Your task to perform on an android device: open app "Yahoo Mail" Image 0: 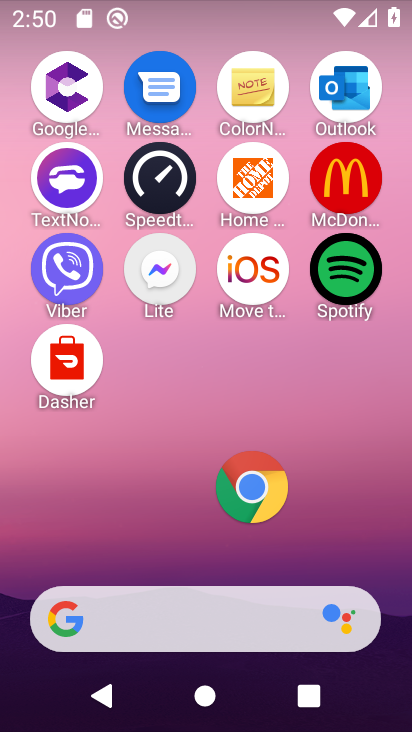
Step 0: drag from (170, 554) to (188, 228)
Your task to perform on an android device: open app "Yahoo Mail" Image 1: 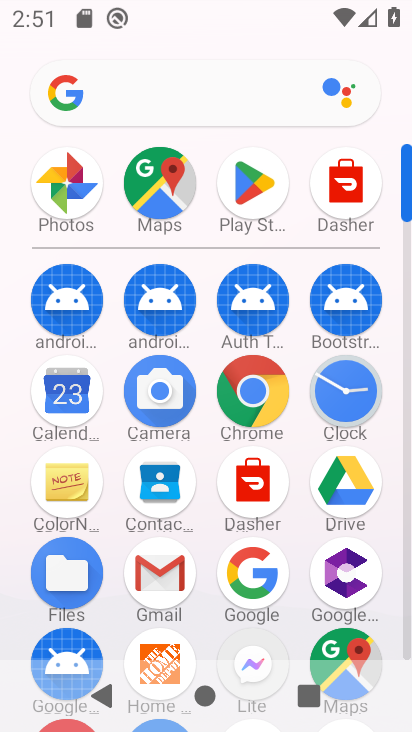
Step 1: click (250, 161)
Your task to perform on an android device: open app "Yahoo Mail" Image 2: 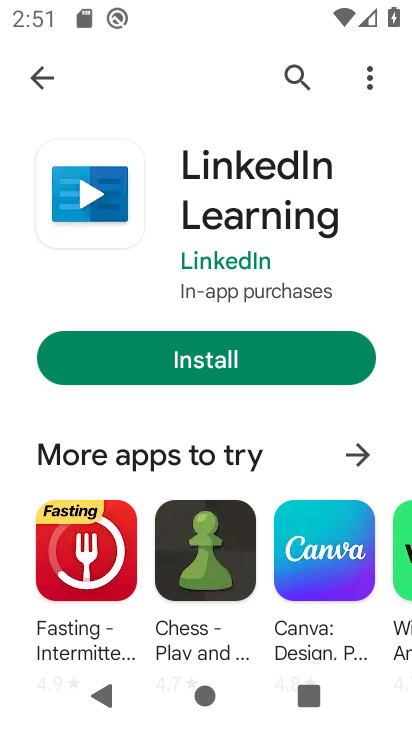
Step 2: click (46, 67)
Your task to perform on an android device: open app "Yahoo Mail" Image 3: 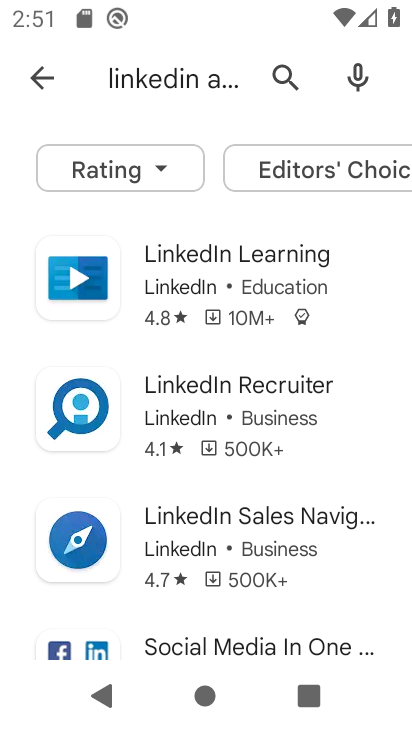
Step 3: click (59, 64)
Your task to perform on an android device: open app "Yahoo Mail" Image 4: 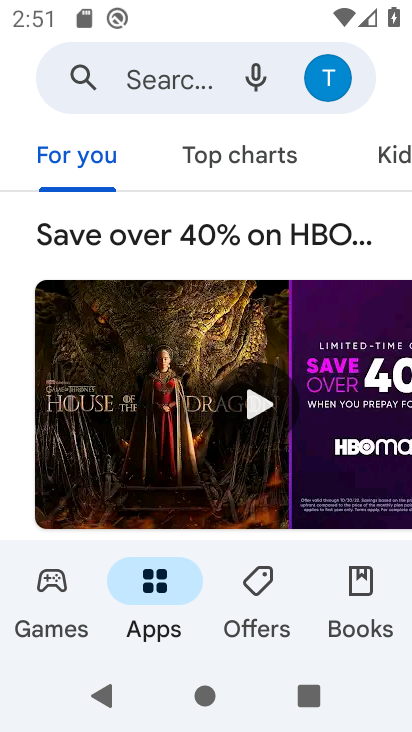
Step 4: click (165, 81)
Your task to perform on an android device: open app "Yahoo Mail" Image 5: 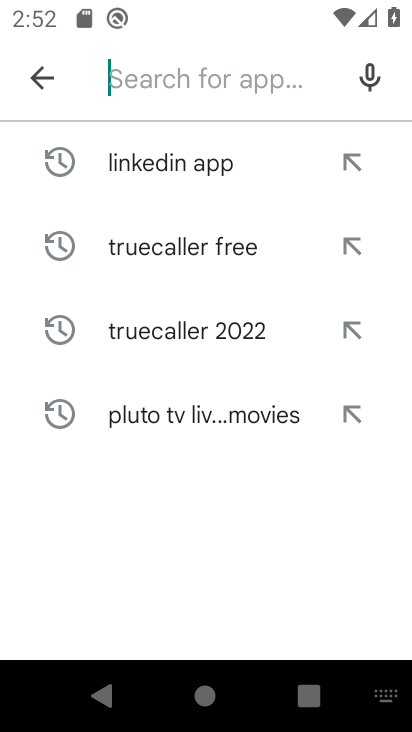
Step 5: type "Yahoo Mail "
Your task to perform on an android device: open app "Yahoo Mail" Image 6: 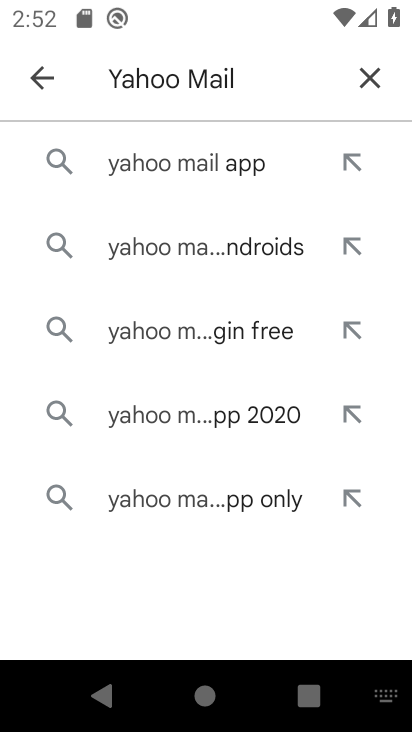
Step 6: click (193, 165)
Your task to perform on an android device: open app "Yahoo Mail" Image 7: 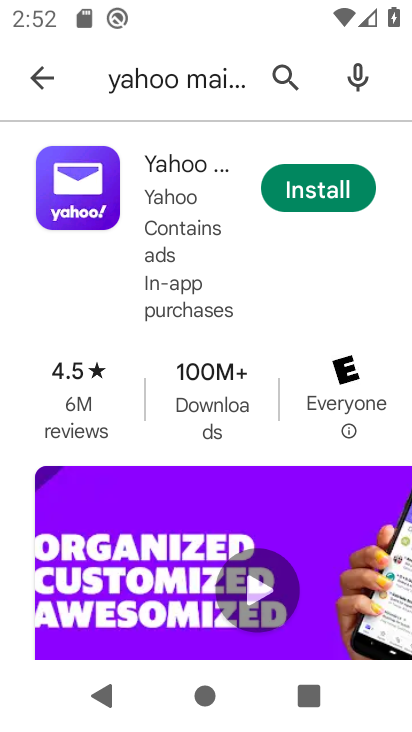
Step 7: click (330, 176)
Your task to perform on an android device: open app "Yahoo Mail" Image 8: 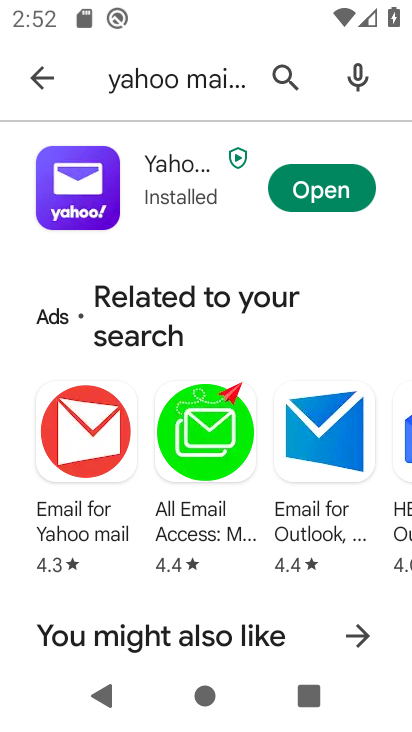
Step 8: click (289, 181)
Your task to perform on an android device: open app "Yahoo Mail" Image 9: 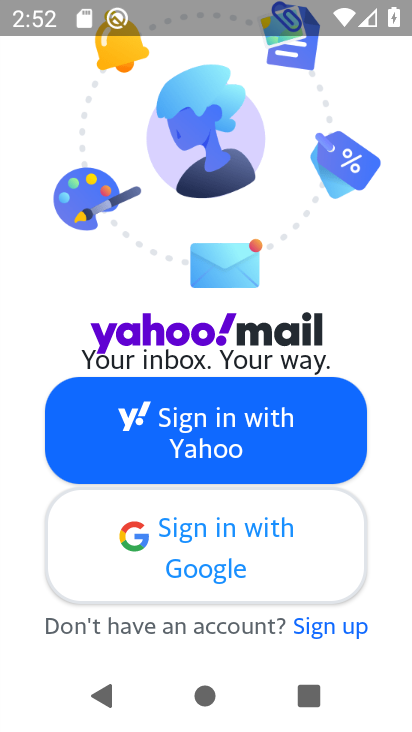
Step 9: task complete